Your task to perform on an android device: set an alarm Image 0: 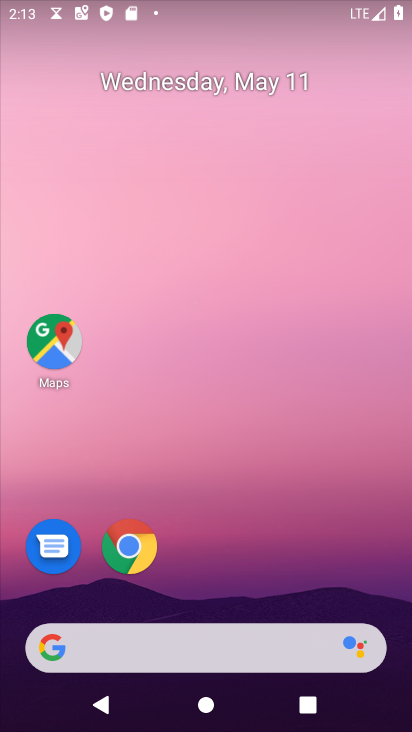
Step 0: drag from (241, 625) to (237, 44)
Your task to perform on an android device: set an alarm Image 1: 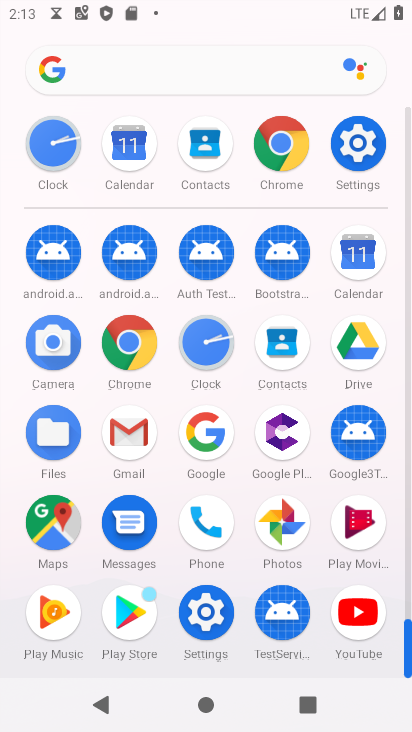
Step 1: click (188, 341)
Your task to perform on an android device: set an alarm Image 2: 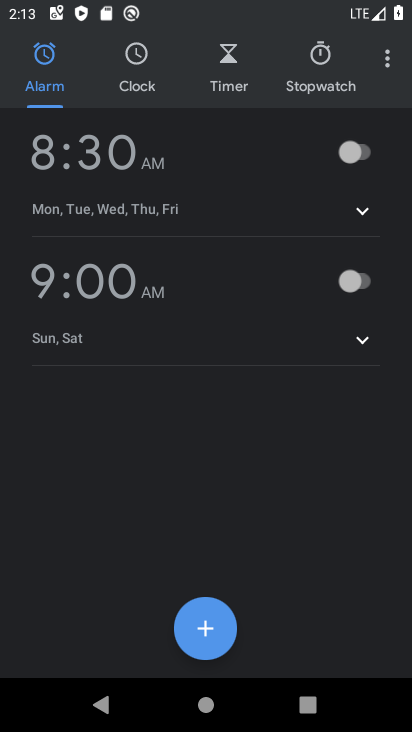
Step 2: click (134, 76)
Your task to perform on an android device: set an alarm Image 3: 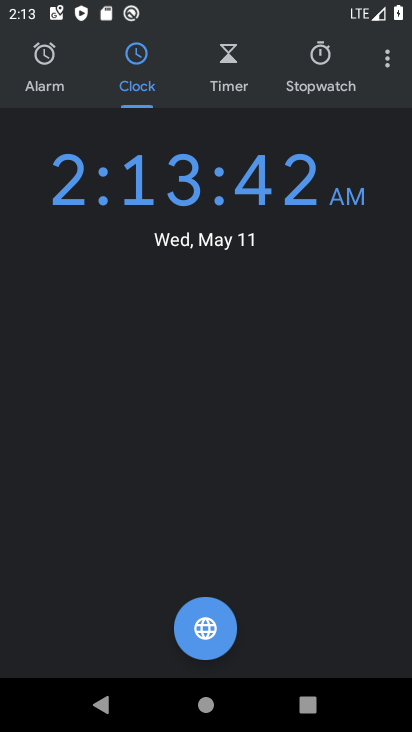
Step 3: click (66, 78)
Your task to perform on an android device: set an alarm Image 4: 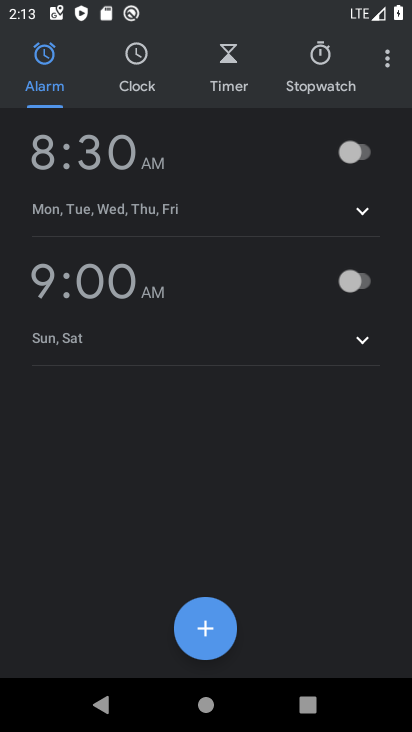
Step 4: click (358, 158)
Your task to perform on an android device: set an alarm Image 5: 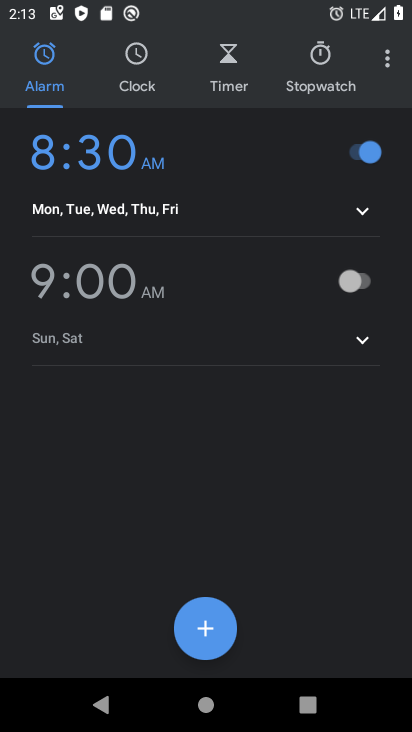
Step 5: task complete